Your task to perform on an android device: Is it going to rain today? Image 0: 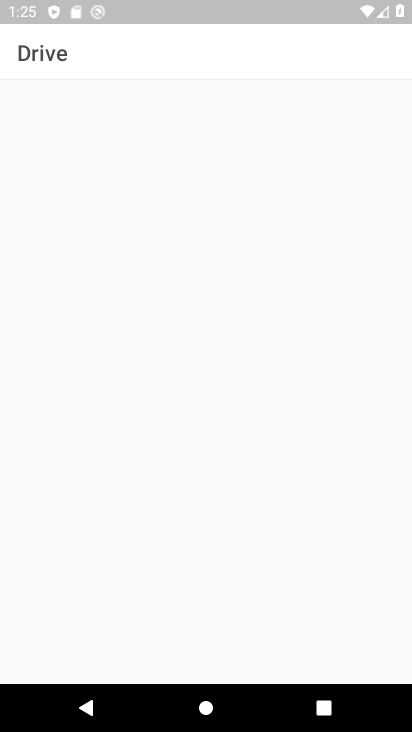
Step 0: press home button
Your task to perform on an android device: Is it going to rain today? Image 1: 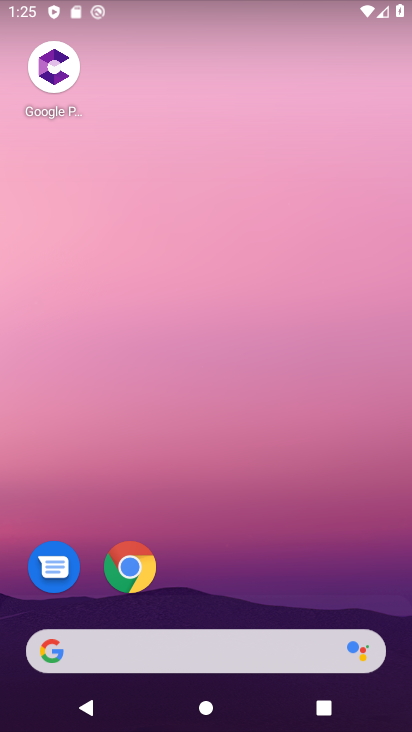
Step 1: drag from (285, 420) to (264, 146)
Your task to perform on an android device: Is it going to rain today? Image 2: 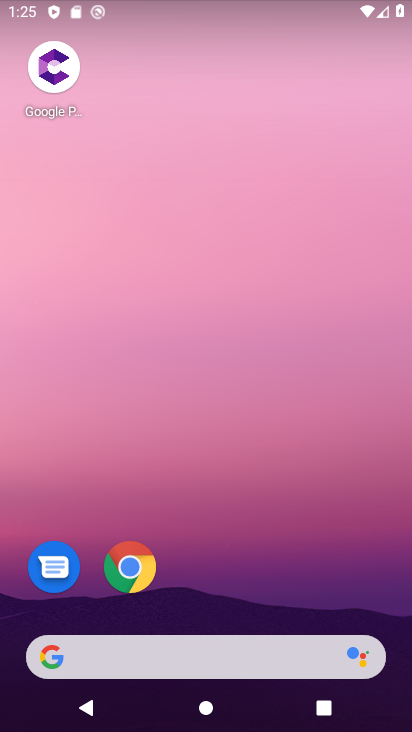
Step 2: drag from (282, 552) to (287, 130)
Your task to perform on an android device: Is it going to rain today? Image 3: 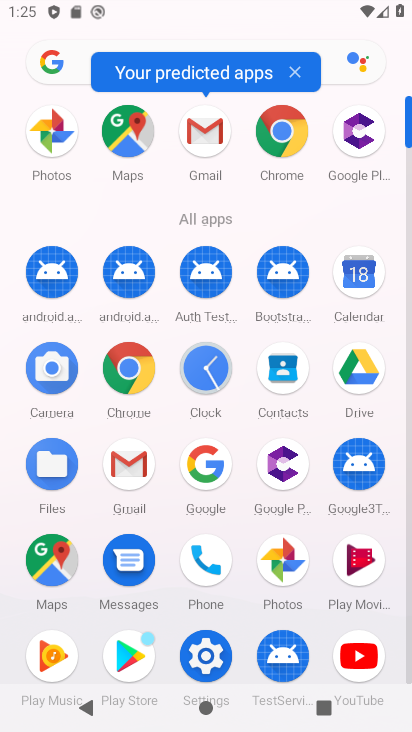
Step 3: click (124, 367)
Your task to perform on an android device: Is it going to rain today? Image 4: 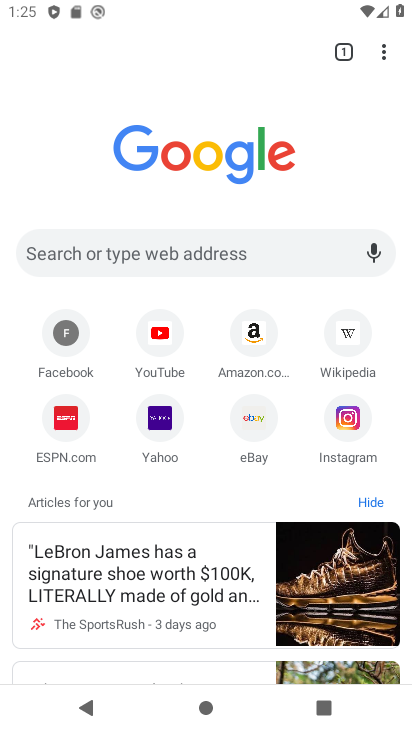
Step 4: click (227, 254)
Your task to perform on an android device: Is it going to rain today? Image 5: 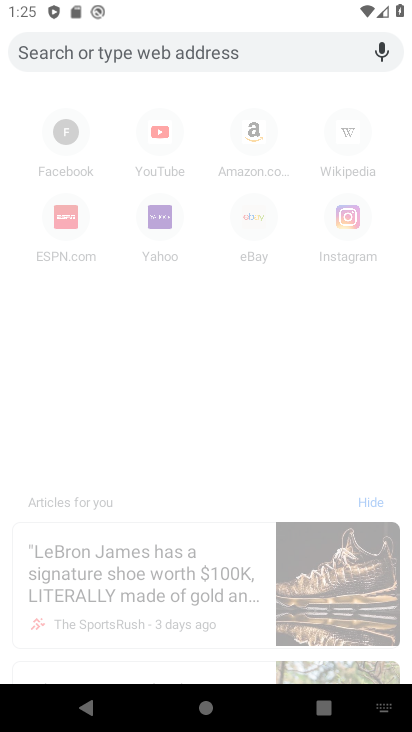
Step 5: type "weather"
Your task to perform on an android device: Is it going to rain today? Image 6: 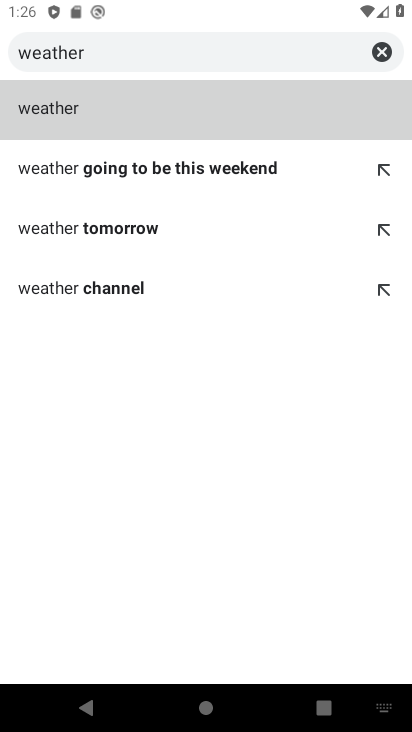
Step 6: click (27, 108)
Your task to perform on an android device: Is it going to rain today? Image 7: 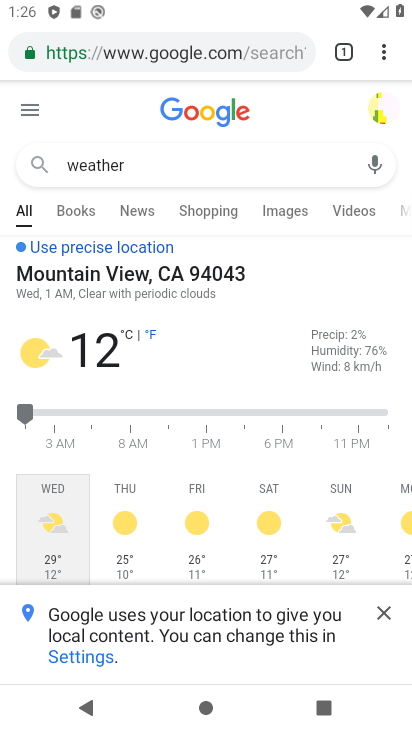
Step 7: task complete